Your task to perform on an android device: open app "Viber Messenger" Image 0: 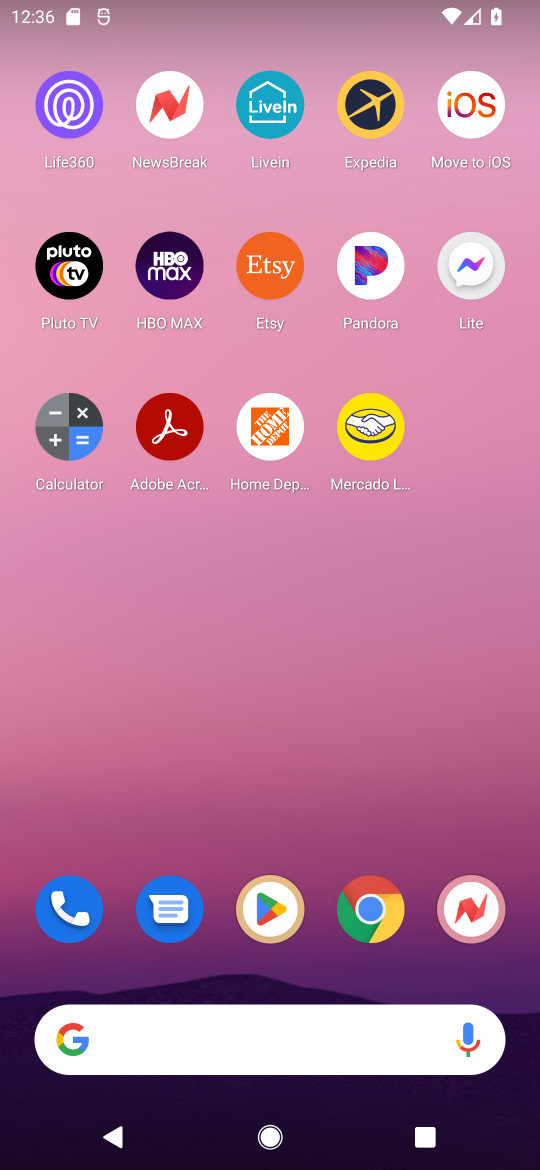
Step 0: click (256, 908)
Your task to perform on an android device: open app "Viber Messenger" Image 1: 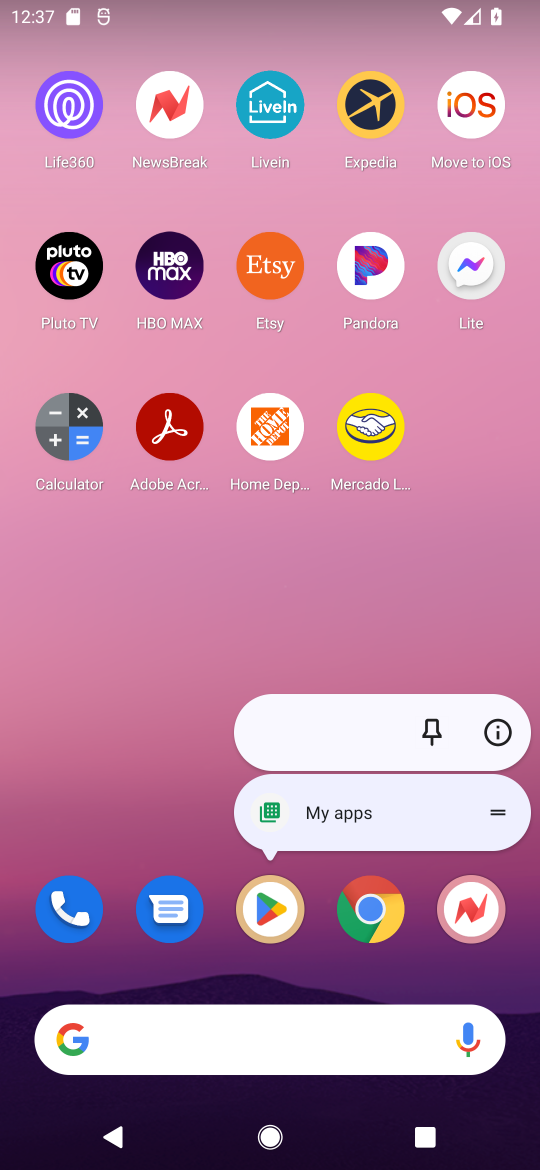
Step 1: click (268, 901)
Your task to perform on an android device: open app "Viber Messenger" Image 2: 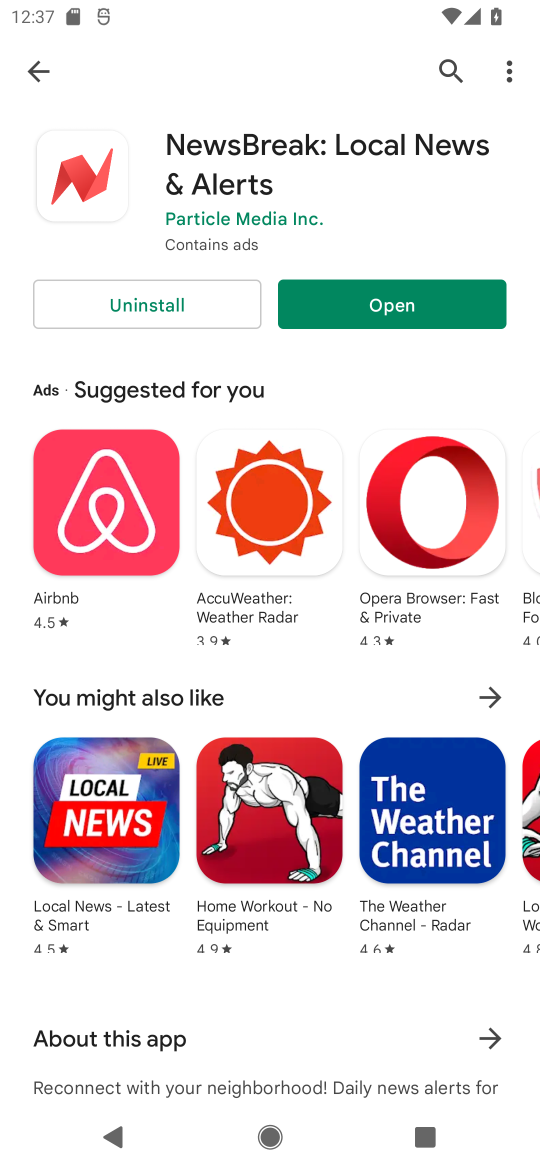
Step 2: click (443, 65)
Your task to perform on an android device: open app "Viber Messenger" Image 3: 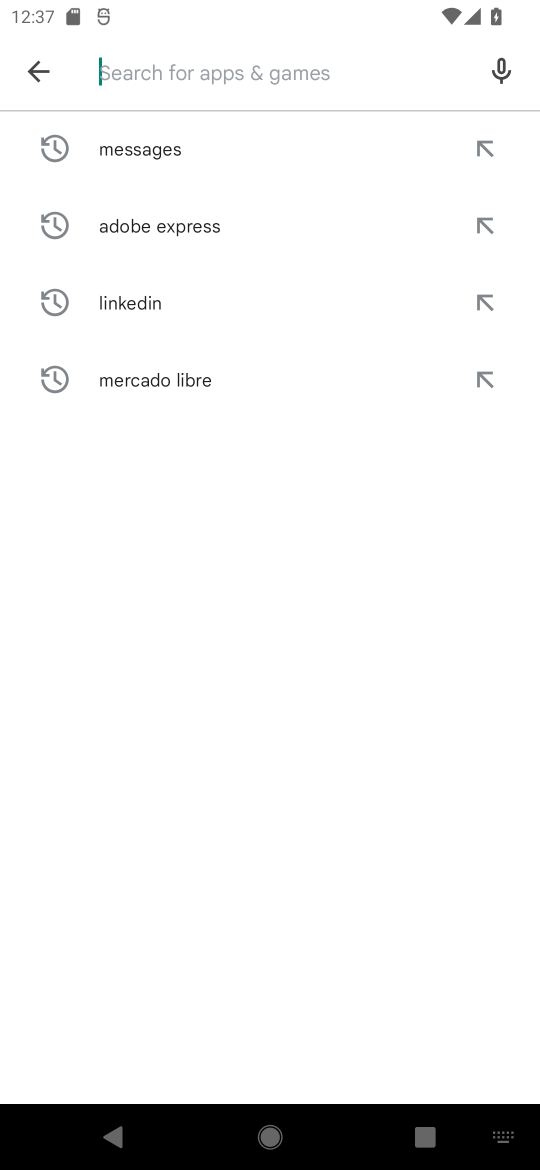
Step 3: click (175, 84)
Your task to perform on an android device: open app "Viber Messenger" Image 4: 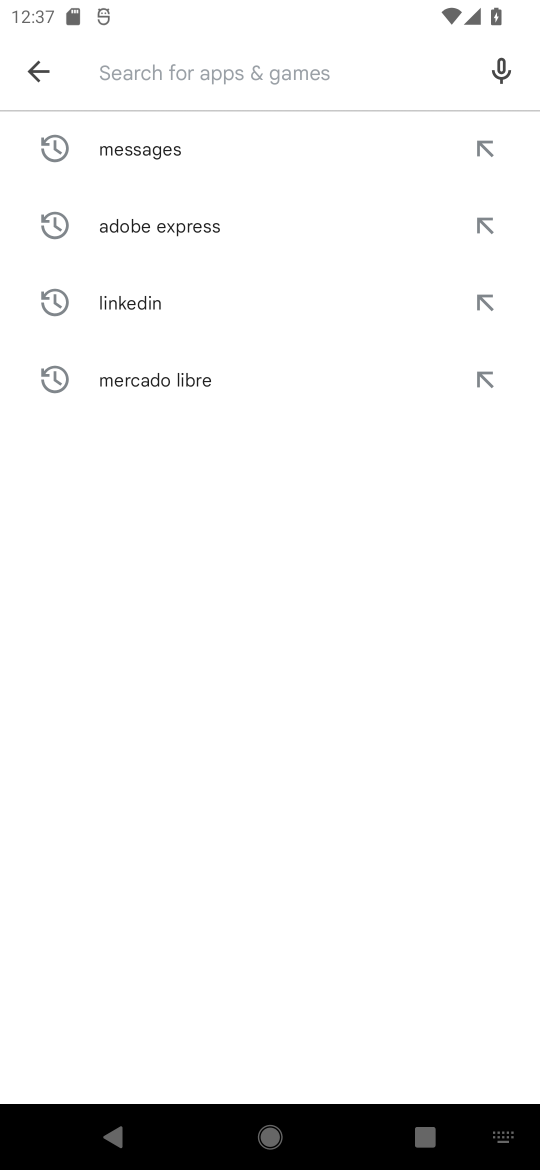
Step 4: type "viber messenger"
Your task to perform on an android device: open app "Viber Messenger" Image 5: 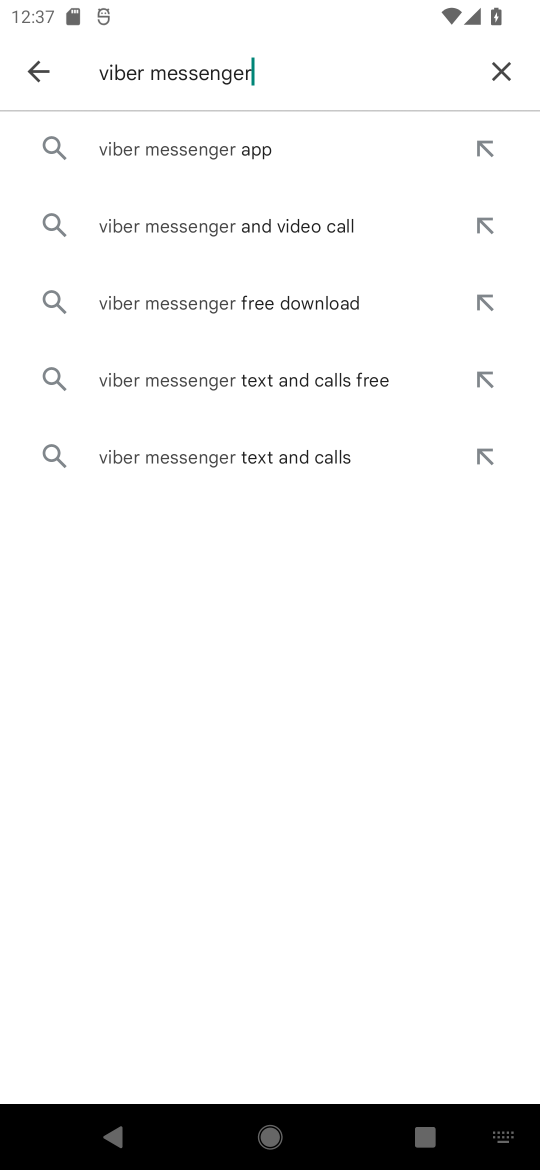
Step 5: click (166, 155)
Your task to perform on an android device: open app "Viber Messenger" Image 6: 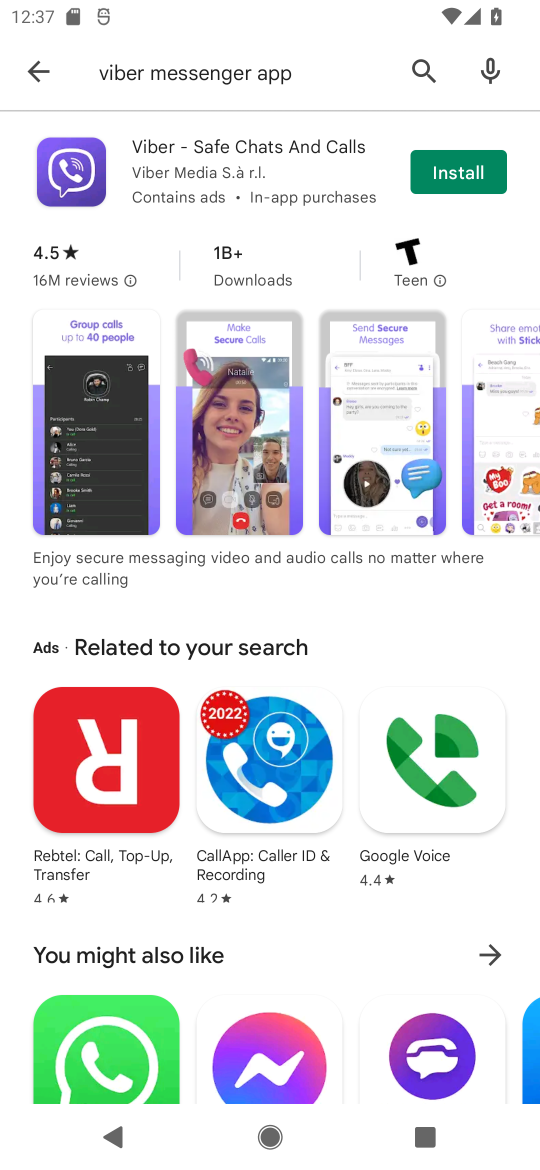
Step 6: click (199, 139)
Your task to perform on an android device: open app "Viber Messenger" Image 7: 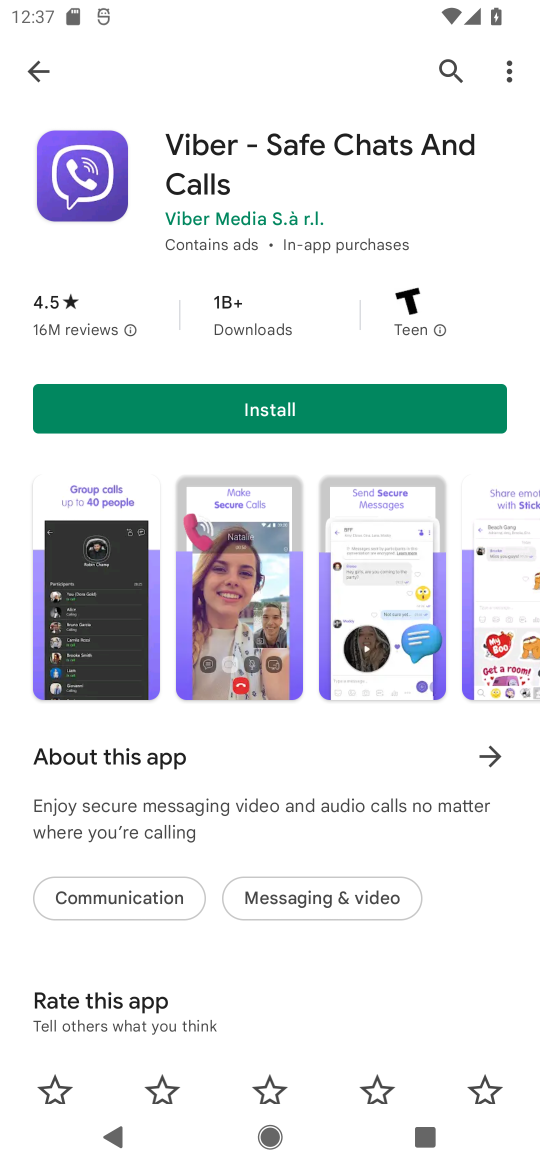
Step 7: task complete